Your task to perform on an android device: Do I have any events today? Image 0: 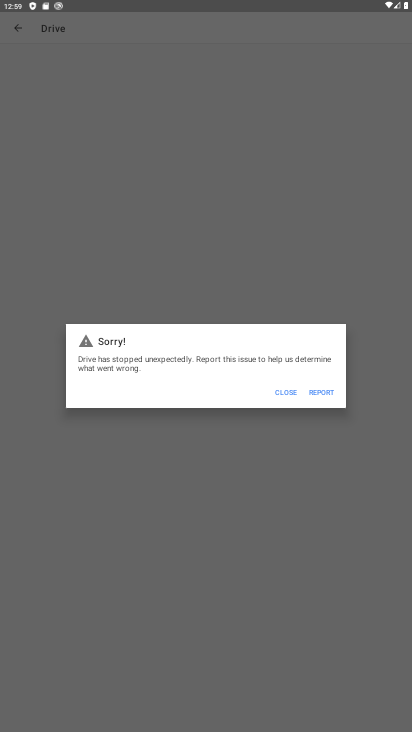
Step 0: press home button
Your task to perform on an android device: Do I have any events today? Image 1: 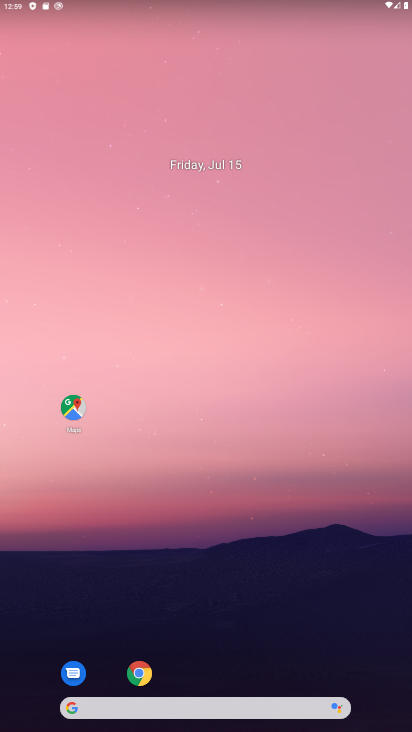
Step 1: drag from (251, 575) to (250, 1)
Your task to perform on an android device: Do I have any events today? Image 2: 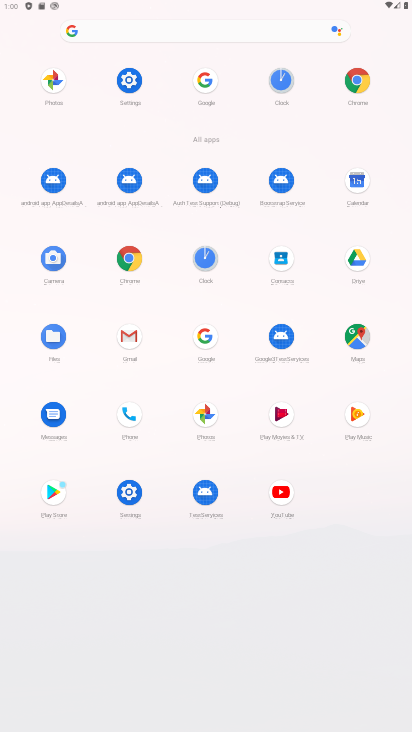
Step 2: click (363, 182)
Your task to perform on an android device: Do I have any events today? Image 3: 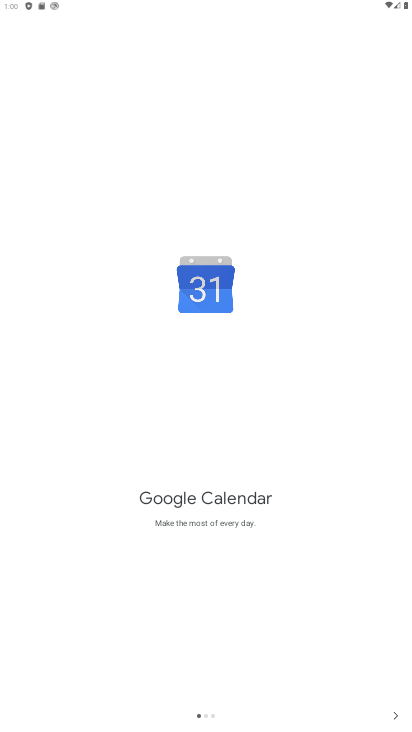
Step 3: press home button
Your task to perform on an android device: Do I have any events today? Image 4: 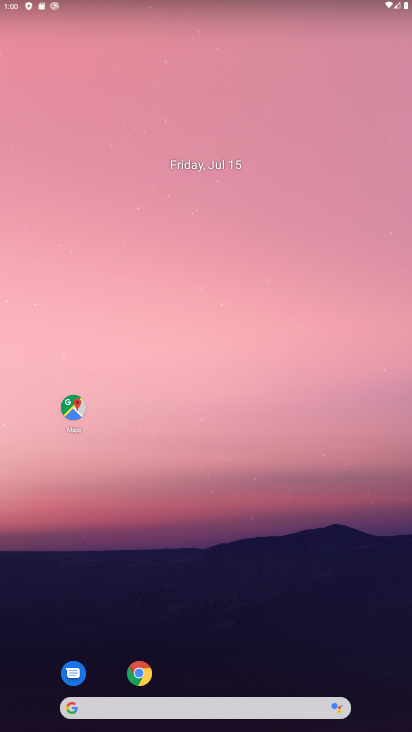
Step 4: drag from (241, 636) to (184, 21)
Your task to perform on an android device: Do I have any events today? Image 5: 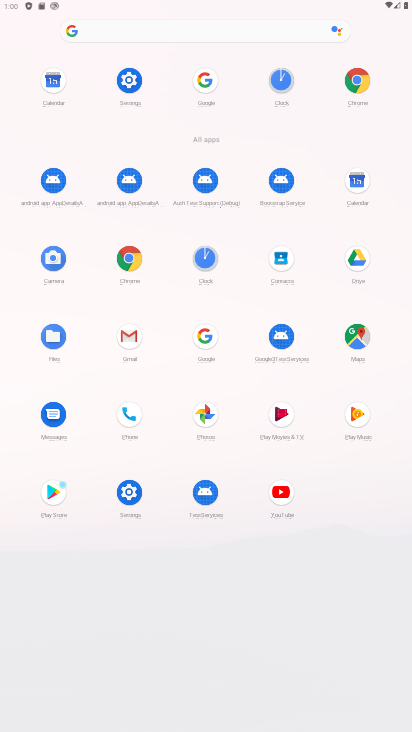
Step 5: click (359, 192)
Your task to perform on an android device: Do I have any events today? Image 6: 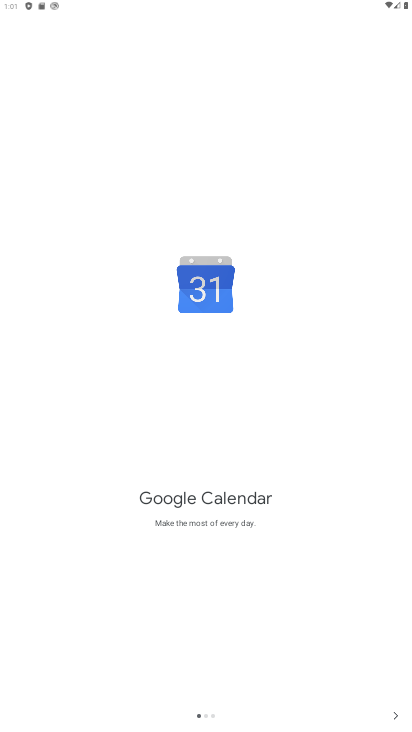
Step 6: click (400, 717)
Your task to perform on an android device: Do I have any events today? Image 7: 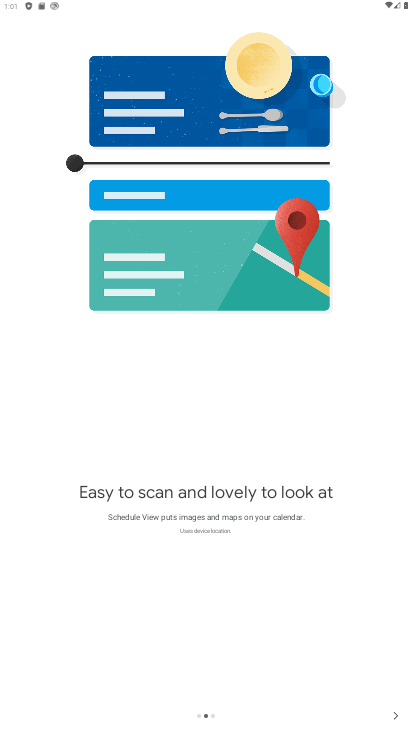
Step 7: click (399, 717)
Your task to perform on an android device: Do I have any events today? Image 8: 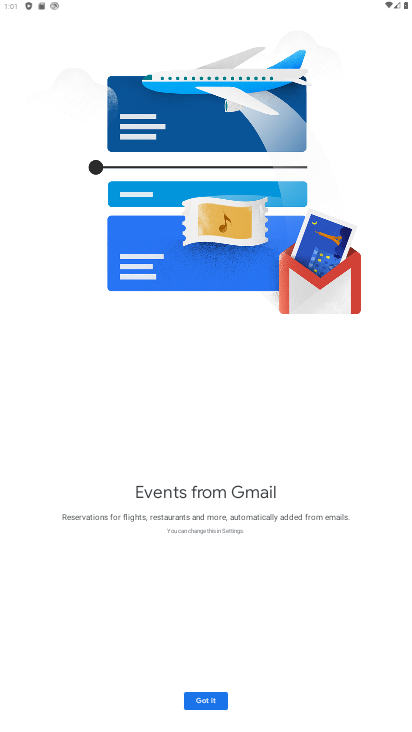
Step 8: click (202, 699)
Your task to perform on an android device: Do I have any events today? Image 9: 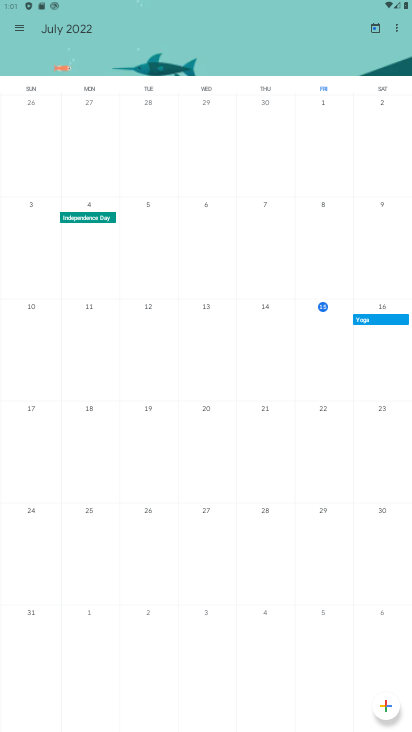
Step 9: task complete